Your task to perform on an android device: toggle pop-ups in chrome Image 0: 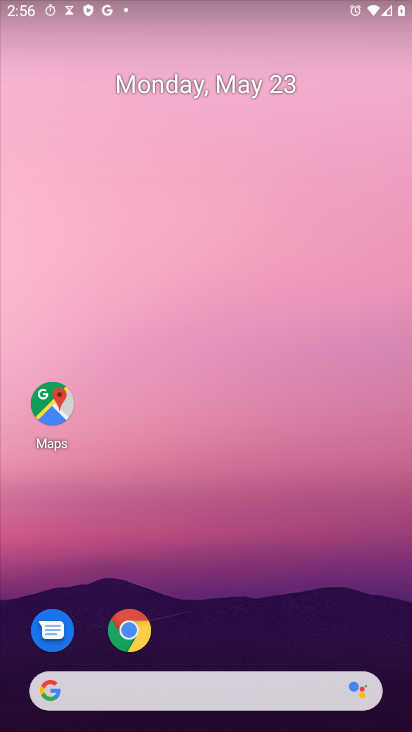
Step 0: drag from (251, 507) to (266, 74)
Your task to perform on an android device: toggle pop-ups in chrome Image 1: 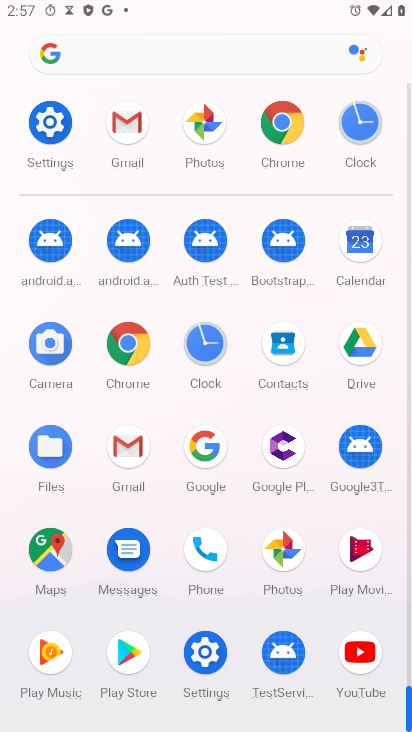
Step 1: click (294, 132)
Your task to perform on an android device: toggle pop-ups in chrome Image 2: 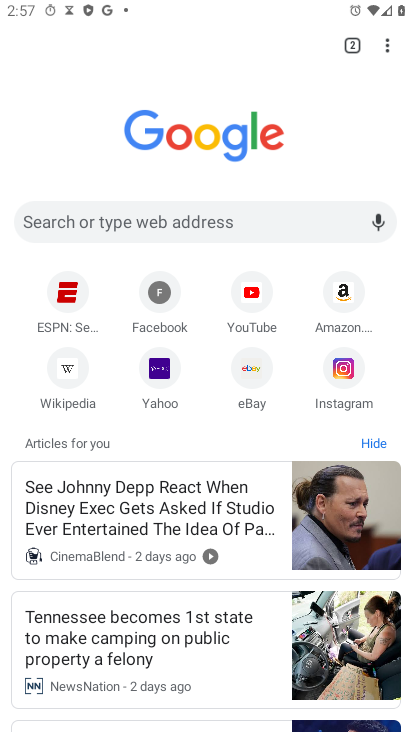
Step 2: drag from (383, 49) to (228, 380)
Your task to perform on an android device: toggle pop-ups in chrome Image 3: 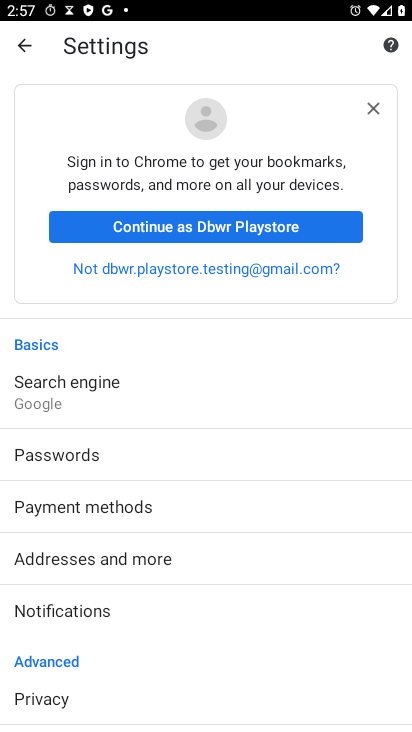
Step 3: drag from (259, 627) to (244, 200)
Your task to perform on an android device: toggle pop-ups in chrome Image 4: 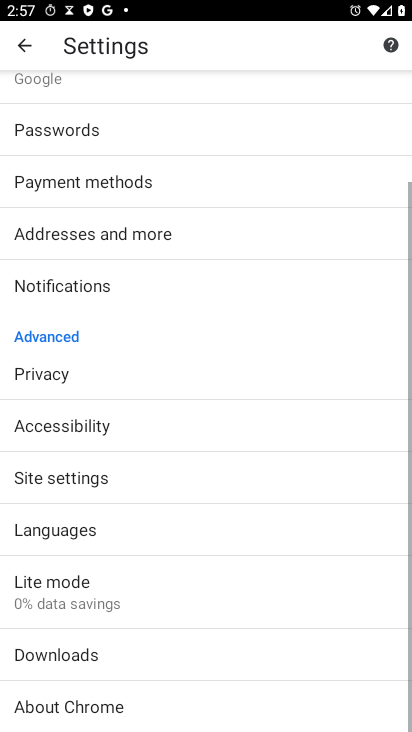
Step 4: drag from (84, 624) to (119, 161)
Your task to perform on an android device: toggle pop-ups in chrome Image 5: 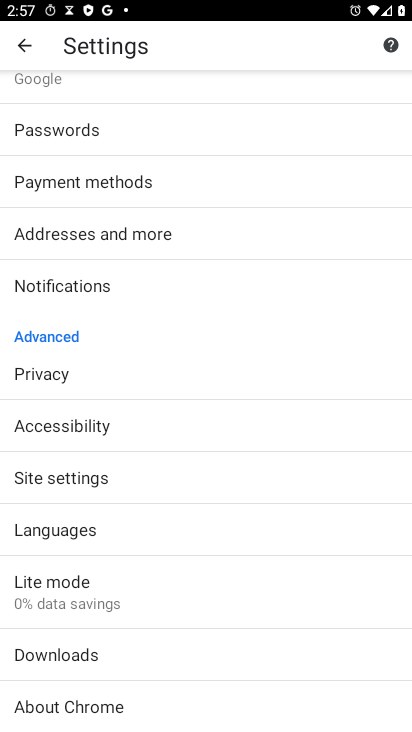
Step 5: click (77, 484)
Your task to perform on an android device: toggle pop-ups in chrome Image 6: 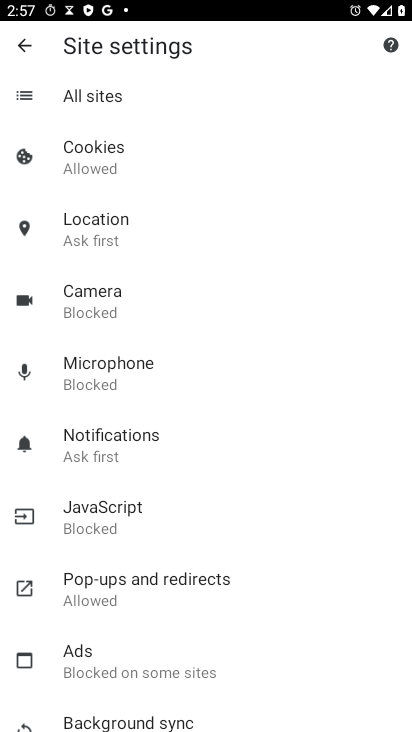
Step 6: drag from (143, 554) to (91, 316)
Your task to perform on an android device: toggle pop-ups in chrome Image 7: 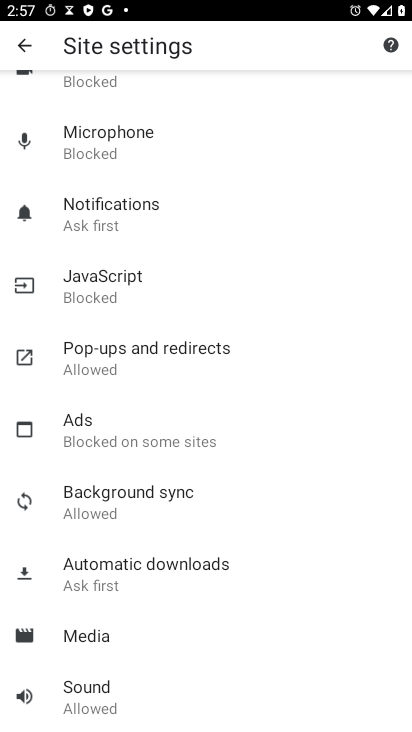
Step 7: click (102, 378)
Your task to perform on an android device: toggle pop-ups in chrome Image 8: 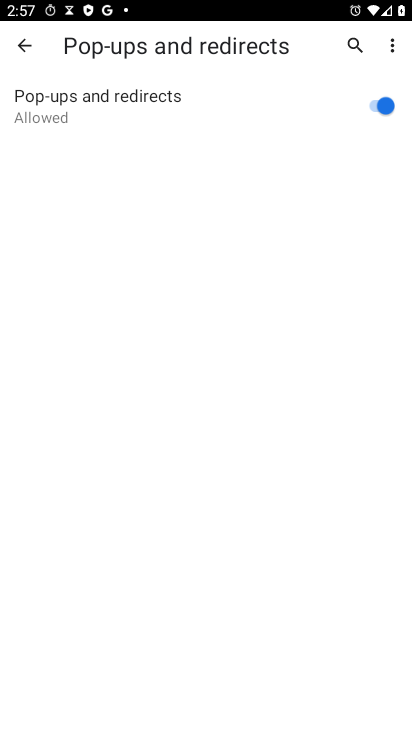
Step 8: click (371, 103)
Your task to perform on an android device: toggle pop-ups in chrome Image 9: 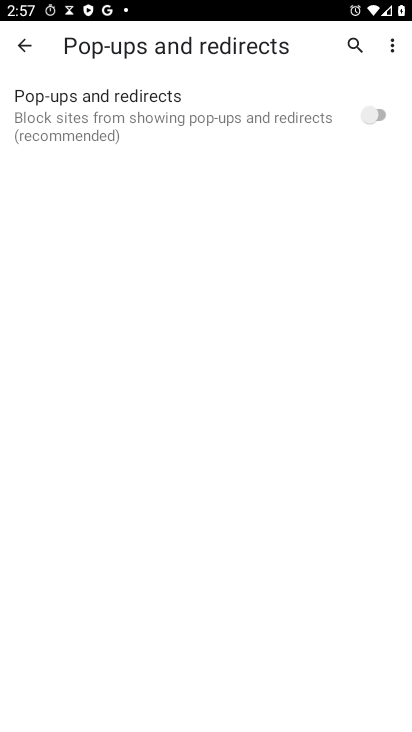
Step 9: task complete